Your task to perform on an android device: turn on translation in the chrome app Image 0: 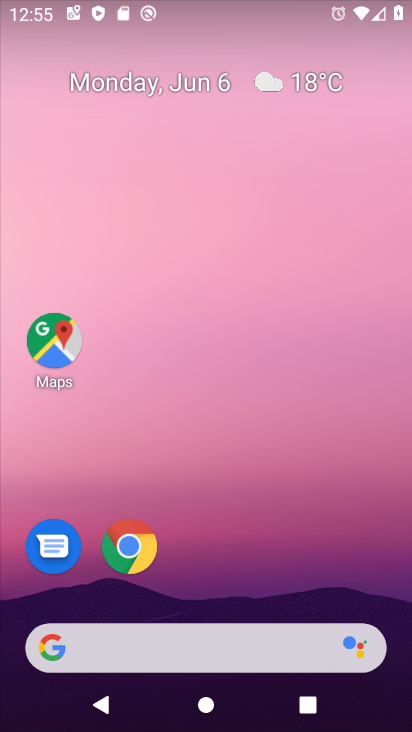
Step 0: click (142, 545)
Your task to perform on an android device: turn on translation in the chrome app Image 1: 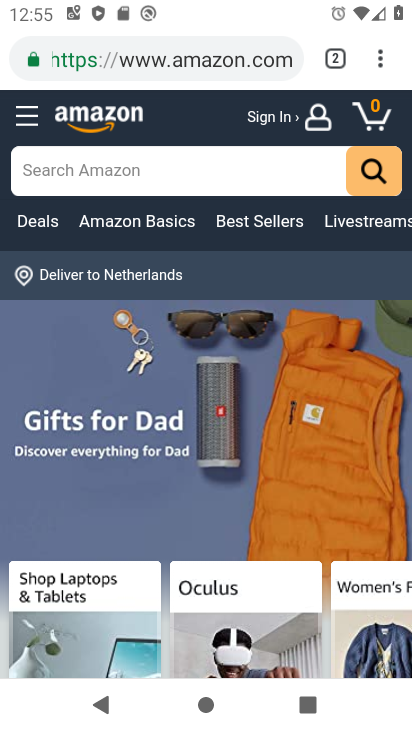
Step 1: drag from (380, 58) to (289, 568)
Your task to perform on an android device: turn on translation in the chrome app Image 2: 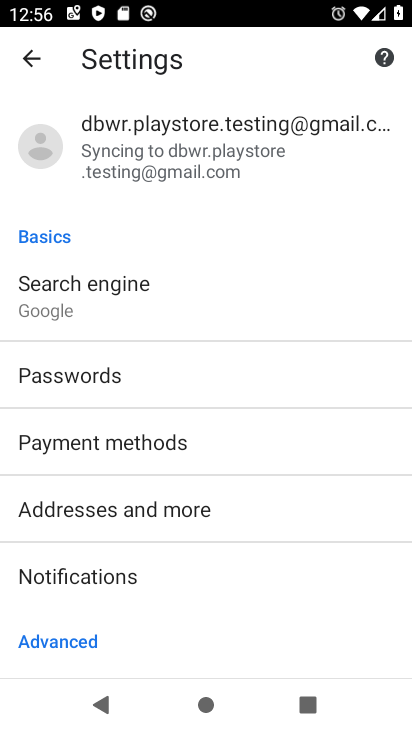
Step 2: drag from (206, 630) to (178, 104)
Your task to perform on an android device: turn on translation in the chrome app Image 3: 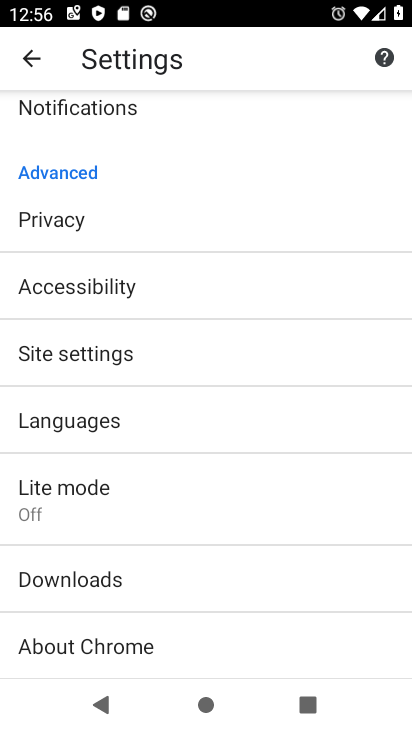
Step 3: click (87, 412)
Your task to perform on an android device: turn on translation in the chrome app Image 4: 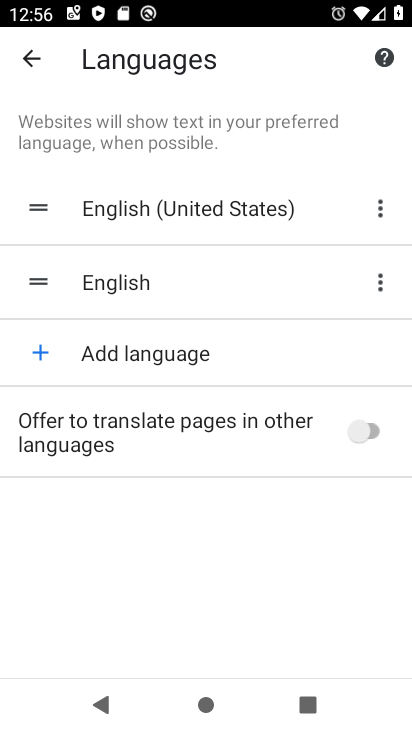
Step 4: click (367, 440)
Your task to perform on an android device: turn on translation in the chrome app Image 5: 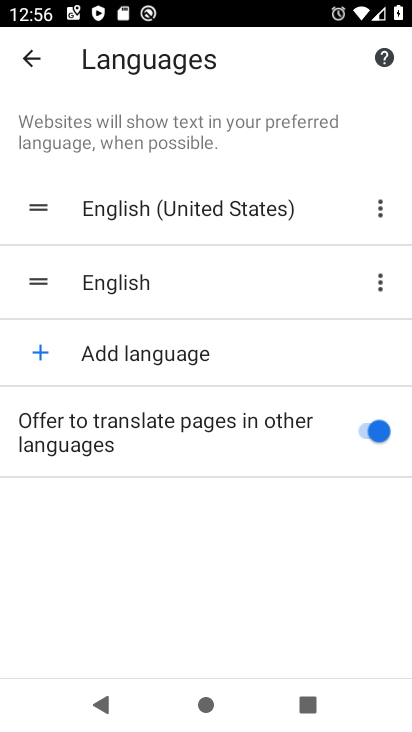
Step 5: task complete